Your task to perform on an android device: Go to Google Image 0: 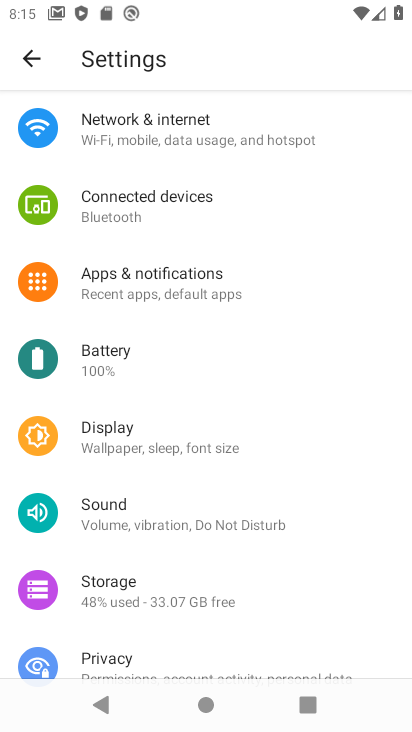
Step 0: press home button
Your task to perform on an android device: Go to Google Image 1: 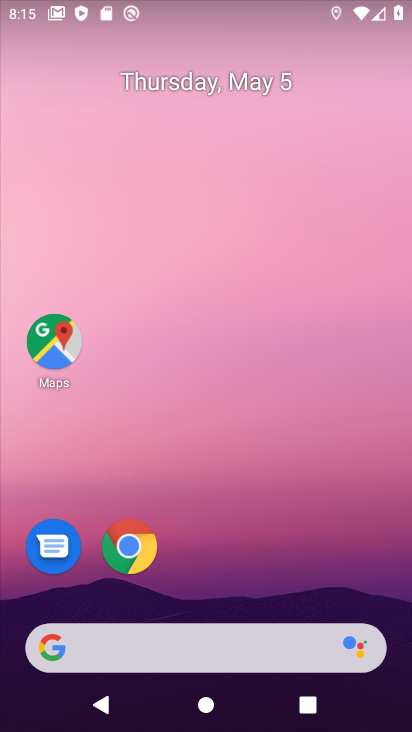
Step 1: drag from (246, 618) to (195, 154)
Your task to perform on an android device: Go to Google Image 2: 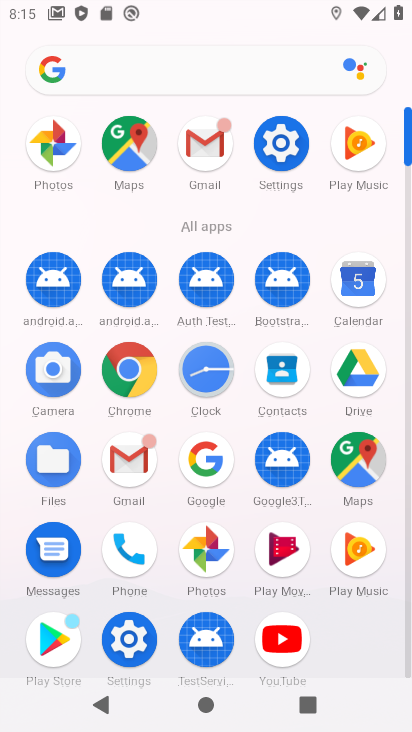
Step 2: click (211, 463)
Your task to perform on an android device: Go to Google Image 3: 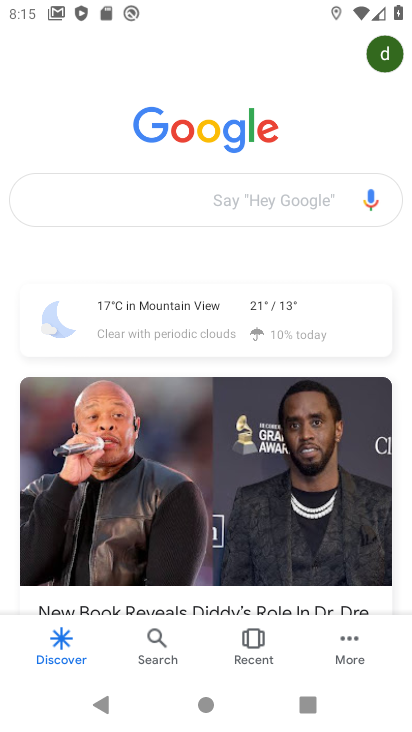
Step 3: task complete